Your task to perform on an android device: open a bookmark in the chrome app Image 0: 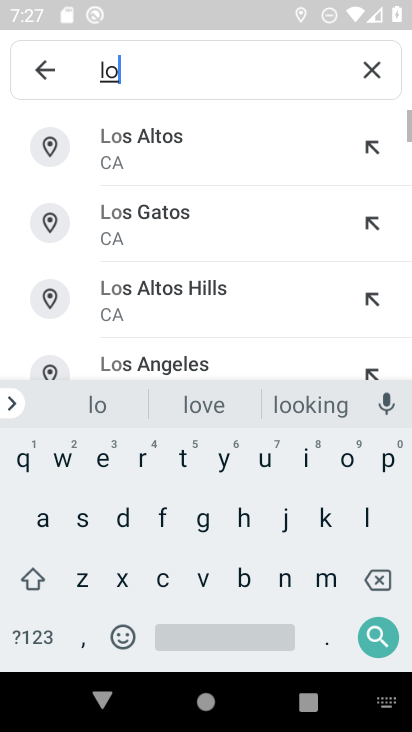
Step 0: press home button
Your task to perform on an android device: open a bookmark in the chrome app Image 1: 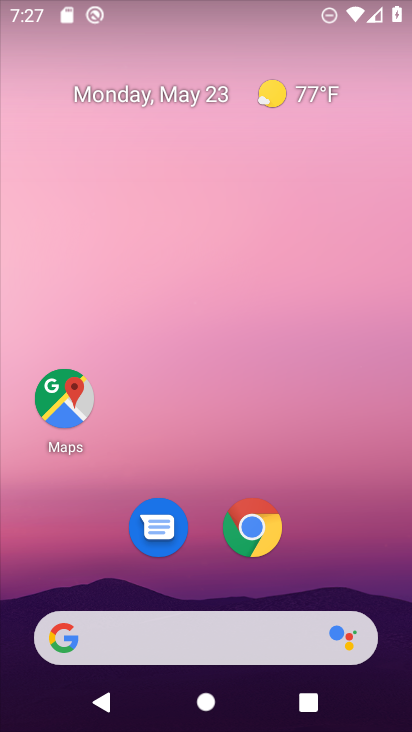
Step 1: drag from (252, 677) to (337, 171)
Your task to perform on an android device: open a bookmark in the chrome app Image 2: 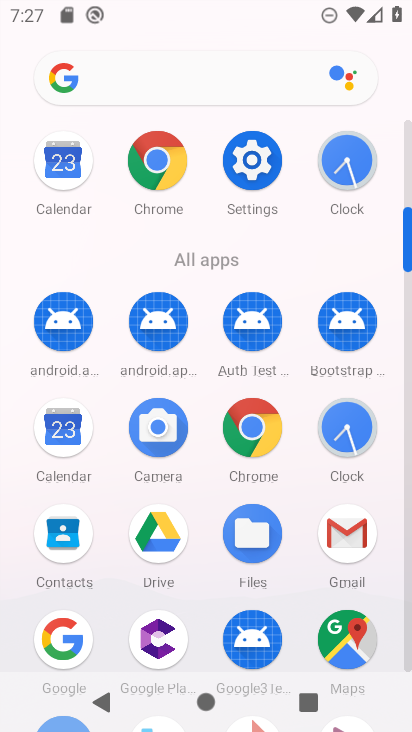
Step 2: click (246, 427)
Your task to perform on an android device: open a bookmark in the chrome app Image 3: 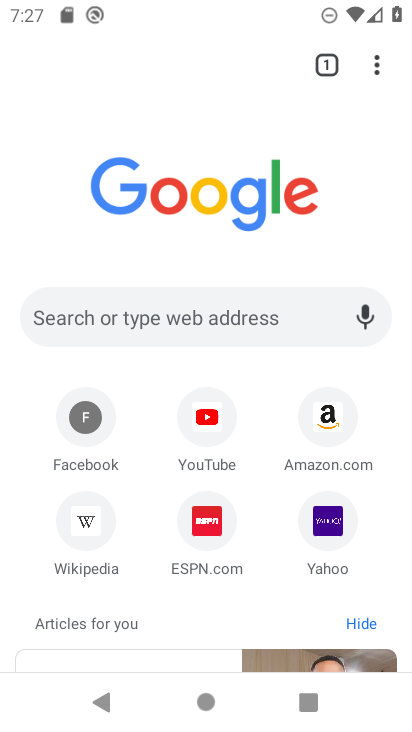
Step 3: click (365, 73)
Your task to perform on an android device: open a bookmark in the chrome app Image 4: 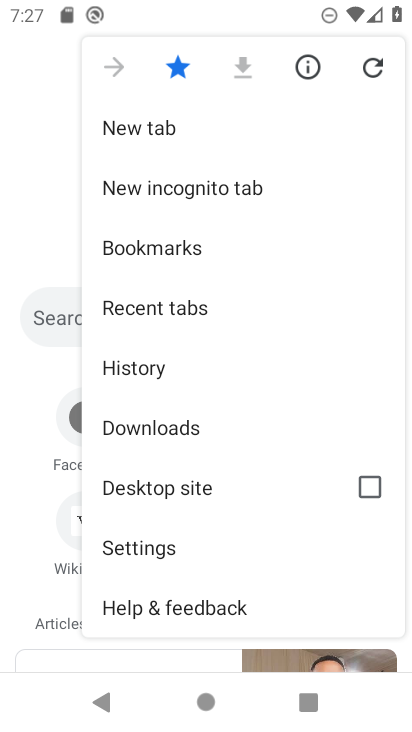
Step 4: click (152, 254)
Your task to perform on an android device: open a bookmark in the chrome app Image 5: 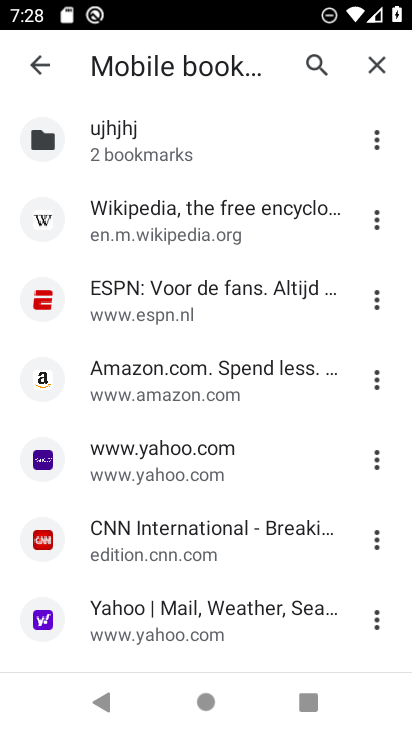
Step 5: click (175, 357)
Your task to perform on an android device: open a bookmark in the chrome app Image 6: 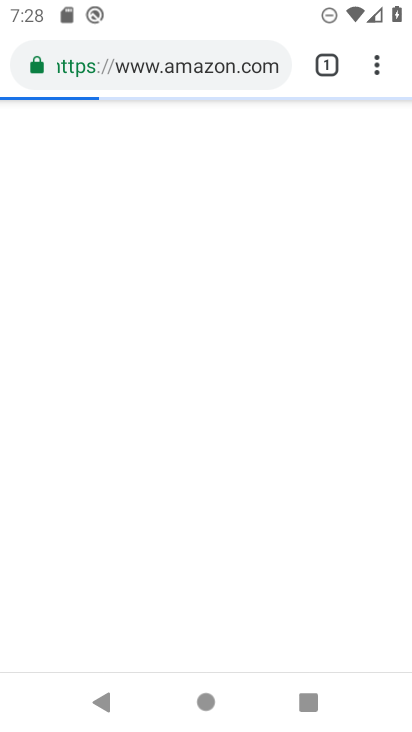
Step 6: task complete